Your task to perform on an android device: turn pop-ups off in chrome Image 0: 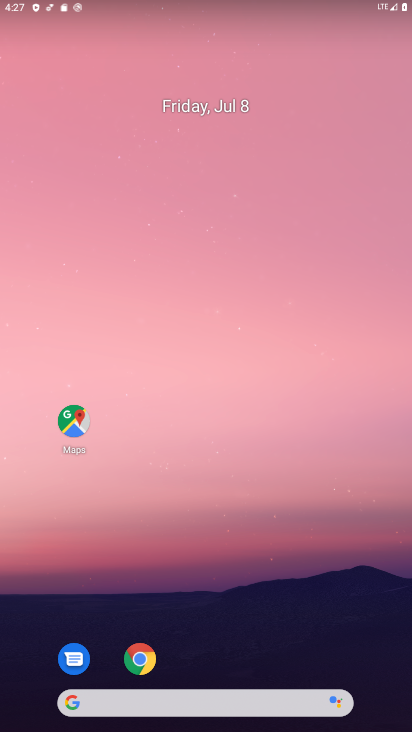
Step 0: drag from (328, 587) to (320, 26)
Your task to perform on an android device: turn pop-ups off in chrome Image 1: 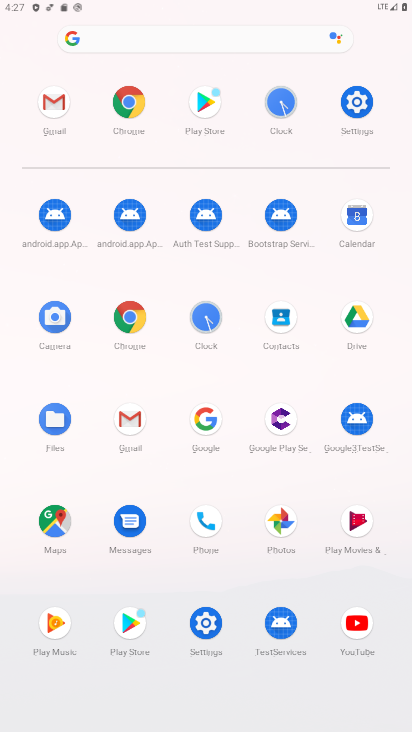
Step 1: click (139, 103)
Your task to perform on an android device: turn pop-ups off in chrome Image 2: 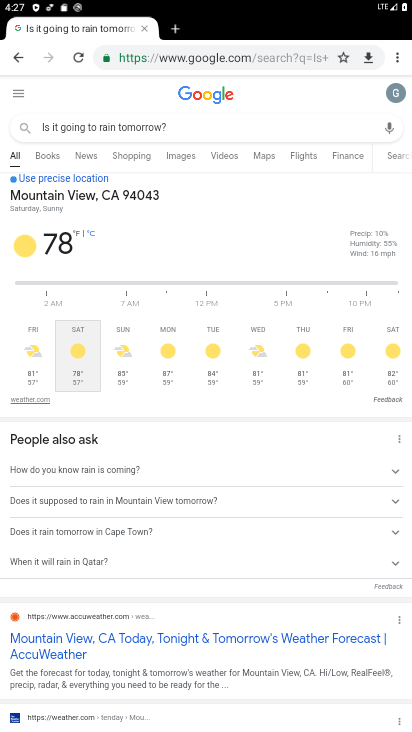
Step 2: drag from (393, 51) to (285, 355)
Your task to perform on an android device: turn pop-ups off in chrome Image 3: 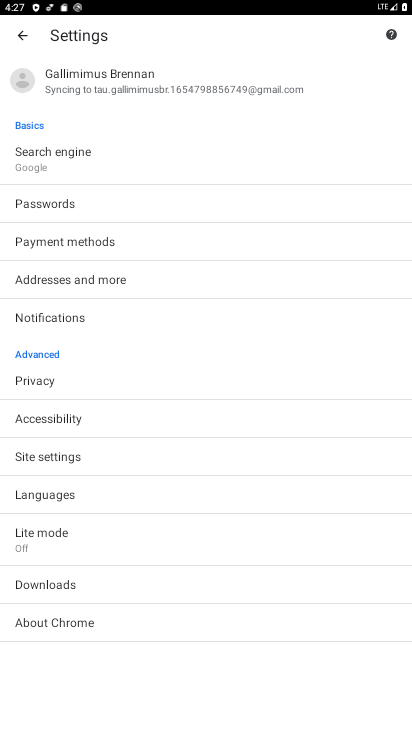
Step 3: click (82, 449)
Your task to perform on an android device: turn pop-ups off in chrome Image 4: 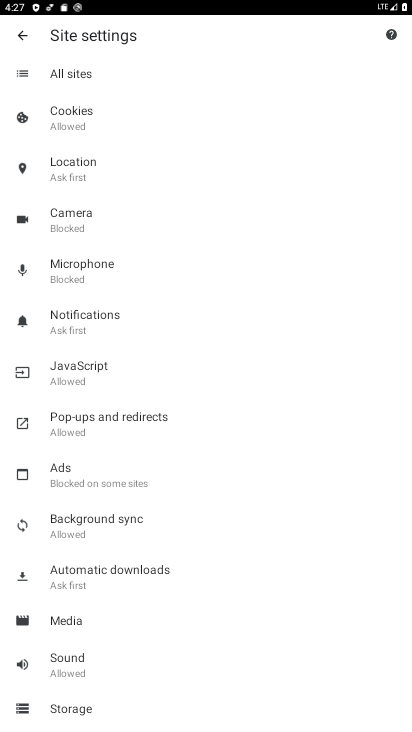
Step 4: click (63, 417)
Your task to perform on an android device: turn pop-ups off in chrome Image 5: 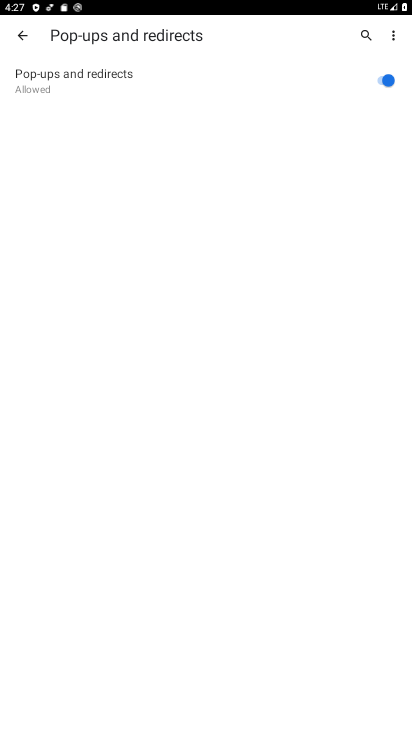
Step 5: click (283, 79)
Your task to perform on an android device: turn pop-ups off in chrome Image 6: 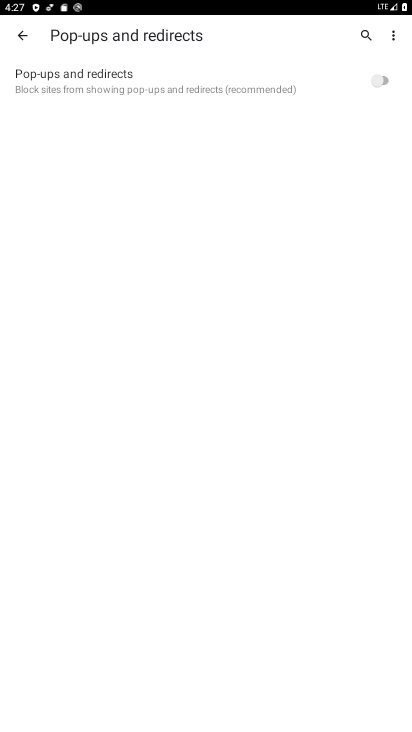
Step 6: task complete